Your task to perform on an android device: Open the phone app and click the voicemail tab. Image 0: 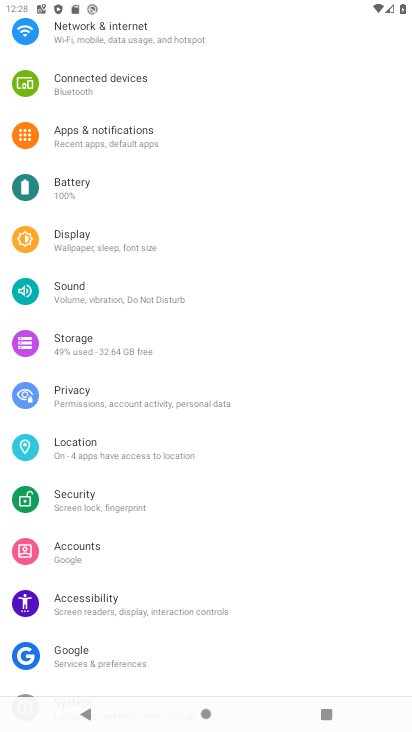
Step 0: press home button
Your task to perform on an android device: Open the phone app and click the voicemail tab. Image 1: 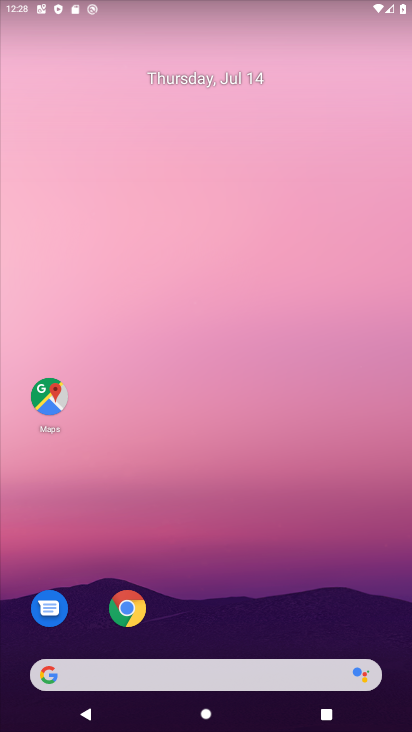
Step 1: drag from (42, 512) to (261, 7)
Your task to perform on an android device: Open the phone app and click the voicemail tab. Image 2: 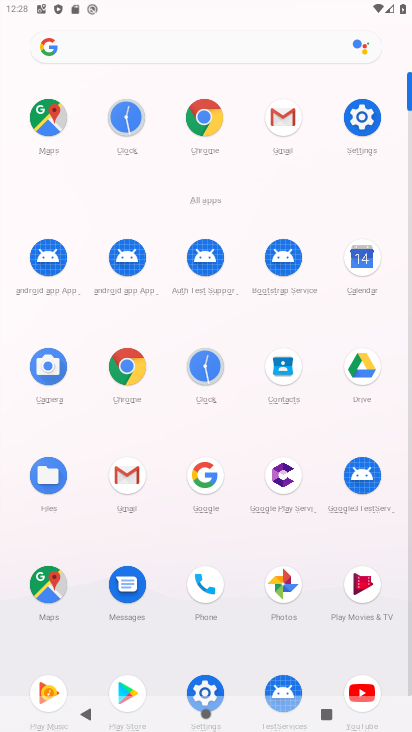
Step 2: click (199, 589)
Your task to perform on an android device: Open the phone app and click the voicemail tab. Image 3: 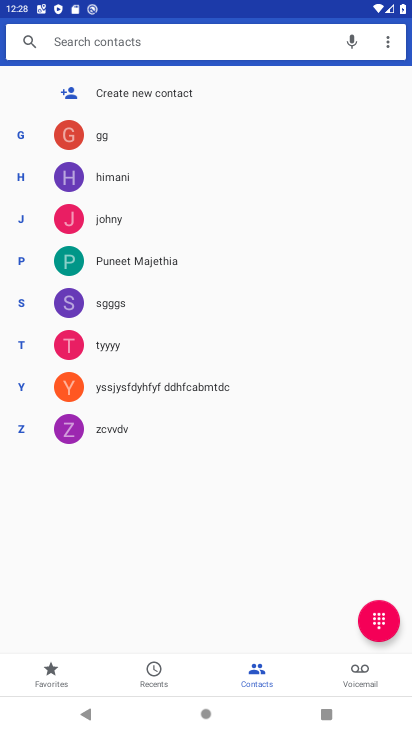
Step 3: click (351, 687)
Your task to perform on an android device: Open the phone app and click the voicemail tab. Image 4: 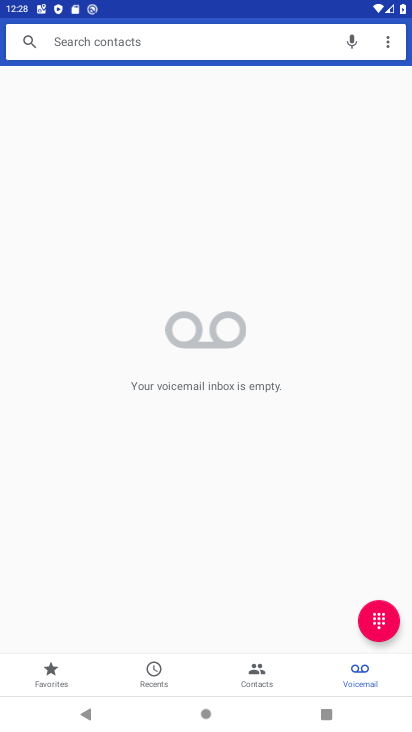
Step 4: task complete